Your task to perform on an android device: clear history in the chrome app Image 0: 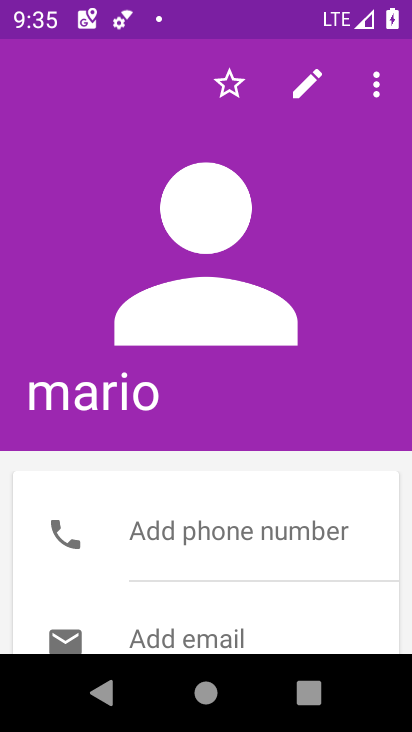
Step 0: press home button
Your task to perform on an android device: clear history in the chrome app Image 1: 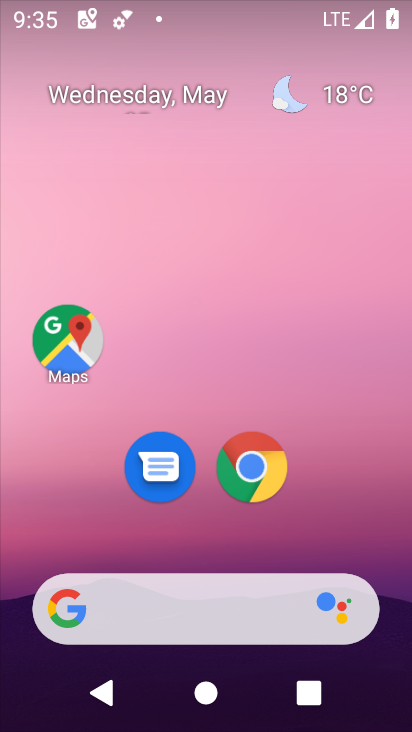
Step 1: click (247, 467)
Your task to perform on an android device: clear history in the chrome app Image 2: 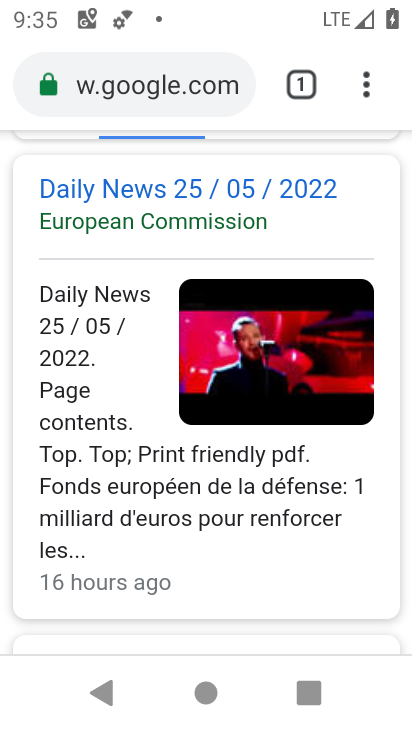
Step 2: drag from (368, 71) to (97, 359)
Your task to perform on an android device: clear history in the chrome app Image 3: 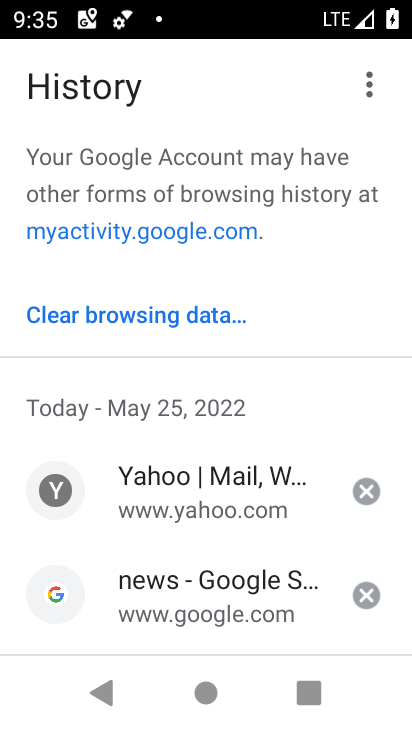
Step 3: click (126, 325)
Your task to perform on an android device: clear history in the chrome app Image 4: 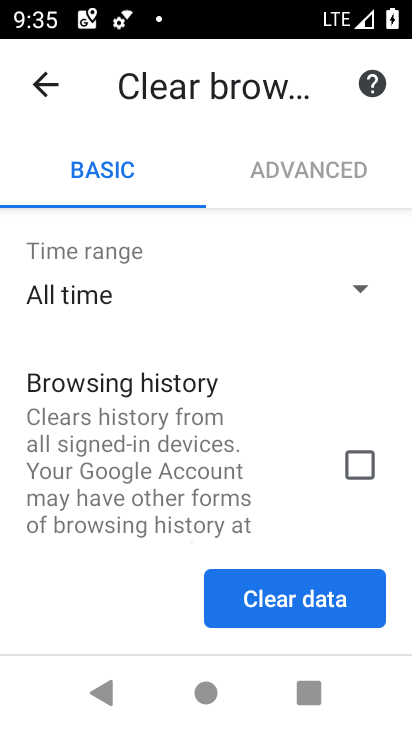
Step 4: click (361, 463)
Your task to perform on an android device: clear history in the chrome app Image 5: 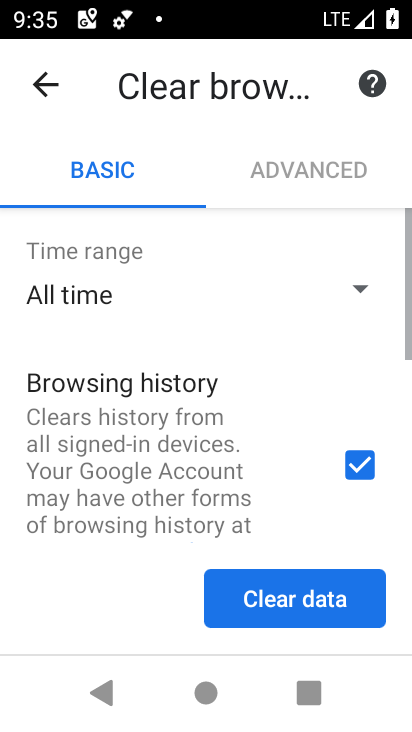
Step 5: click (296, 600)
Your task to perform on an android device: clear history in the chrome app Image 6: 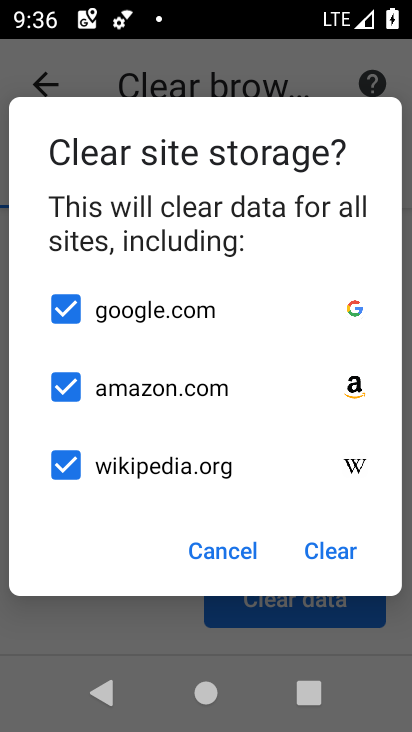
Step 6: click (341, 546)
Your task to perform on an android device: clear history in the chrome app Image 7: 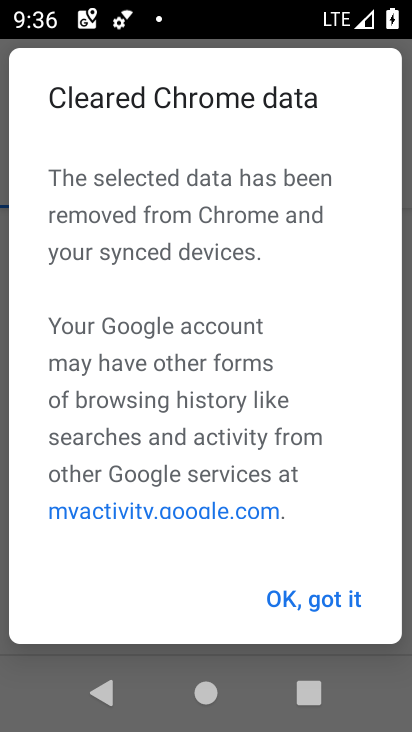
Step 7: task complete